Your task to perform on an android device: Search for duracell triple a on bestbuy.com, select the first entry, add it to the cart, then select checkout. Image 0: 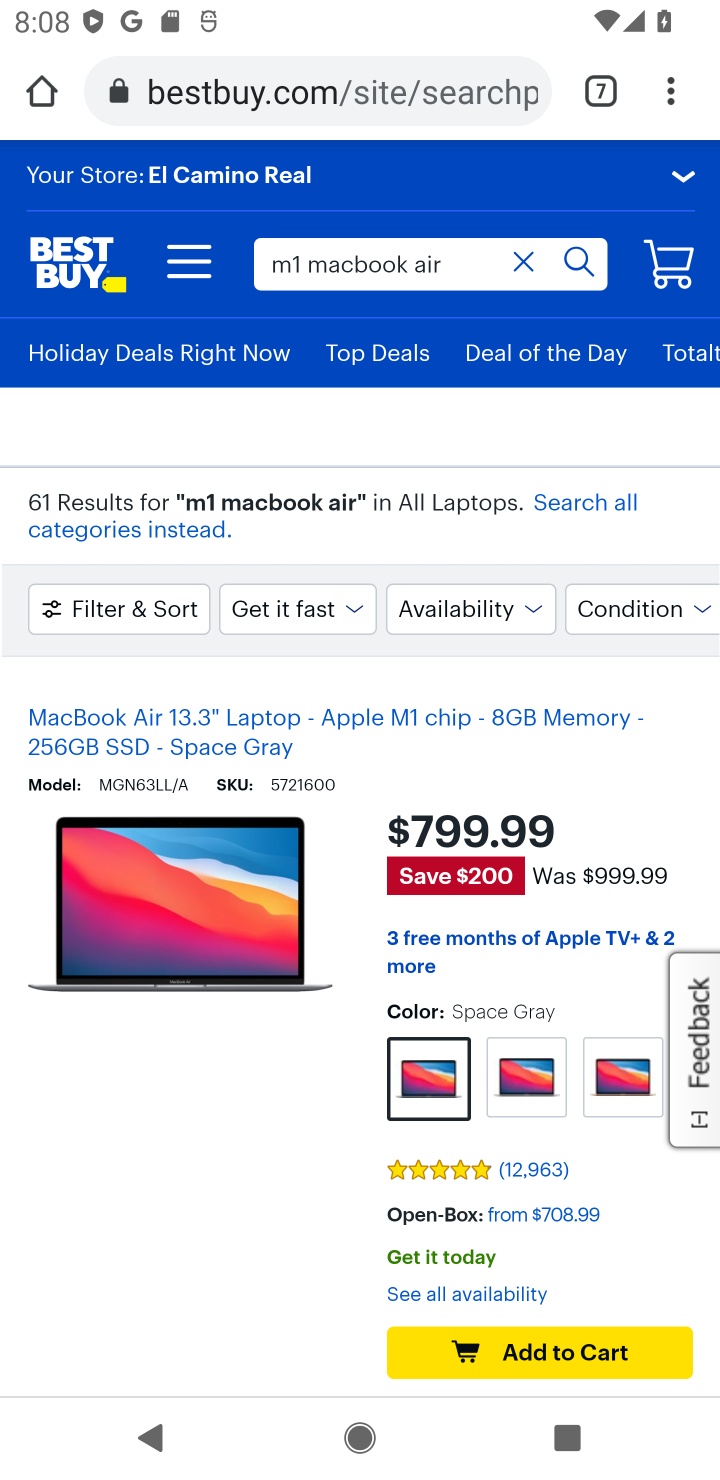
Step 0: press home button
Your task to perform on an android device: Search for duracell triple a on bestbuy.com, select the first entry, add it to the cart, then select checkout. Image 1: 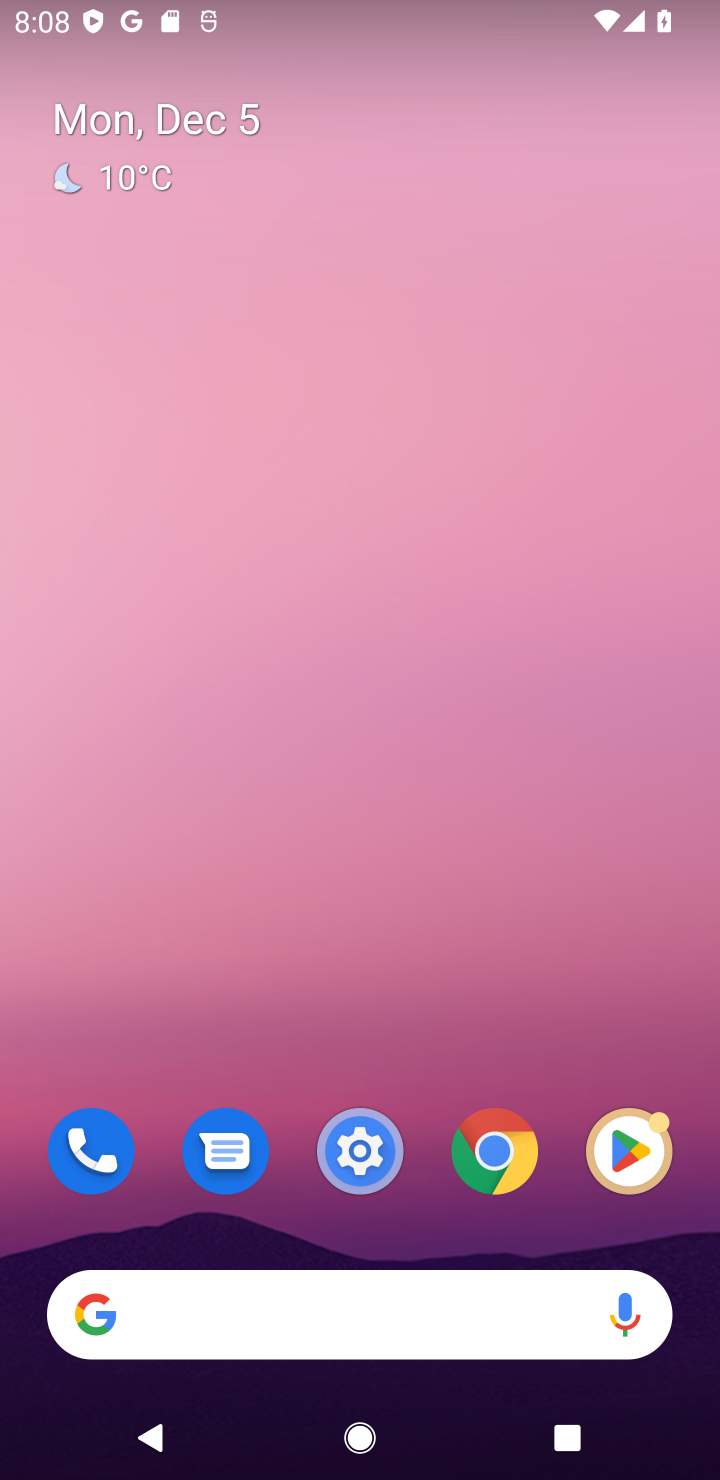
Step 1: click (516, 1289)
Your task to perform on an android device: Search for duracell triple a on bestbuy.com, select the first entry, add it to the cart, then select checkout. Image 2: 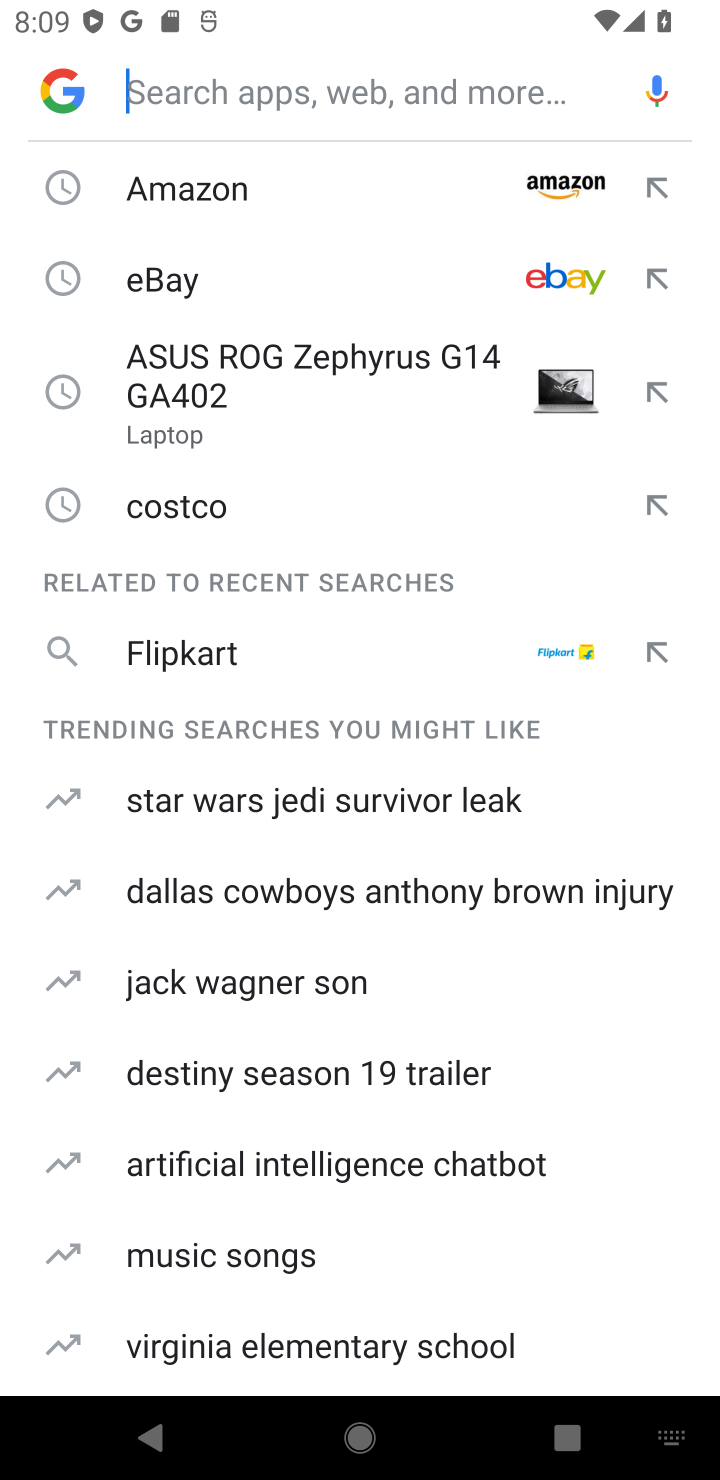
Step 2: type "bestbuy"
Your task to perform on an android device: Search for duracell triple a on bestbuy.com, select the first entry, add it to the cart, then select checkout. Image 3: 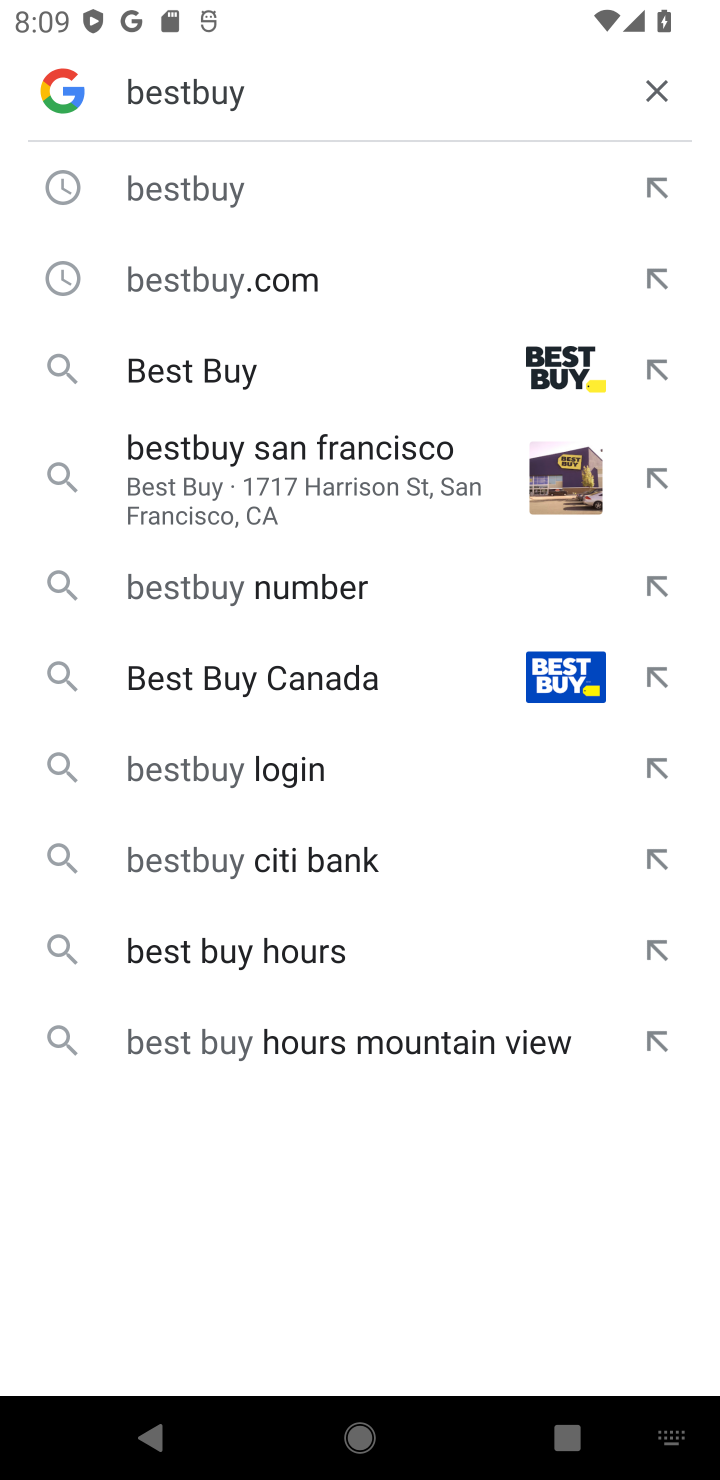
Step 3: click (173, 366)
Your task to perform on an android device: Search for duracell triple a on bestbuy.com, select the first entry, add it to the cart, then select checkout. Image 4: 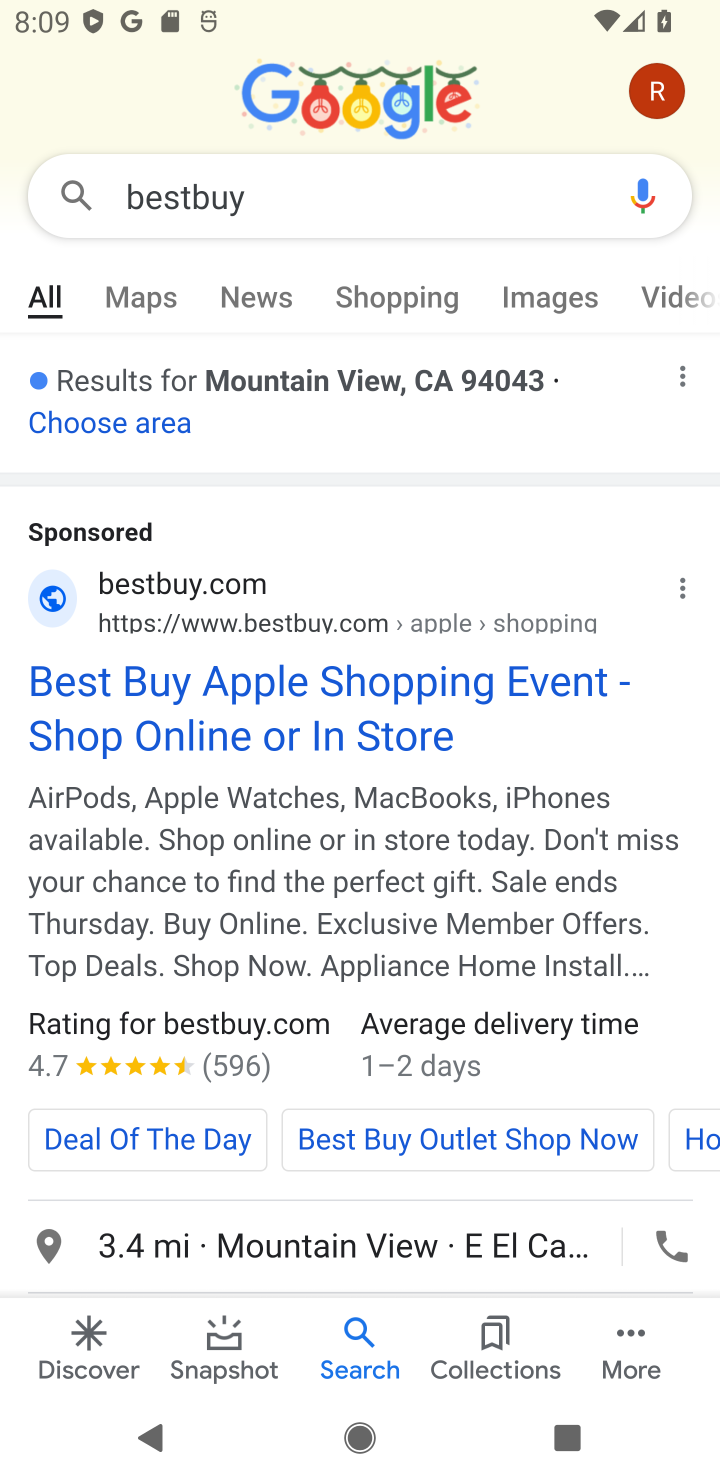
Step 4: click (153, 691)
Your task to perform on an android device: Search for duracell triple a on bestbuy.com, select the first entry, add it to the cart, then select checkout. Image 5: 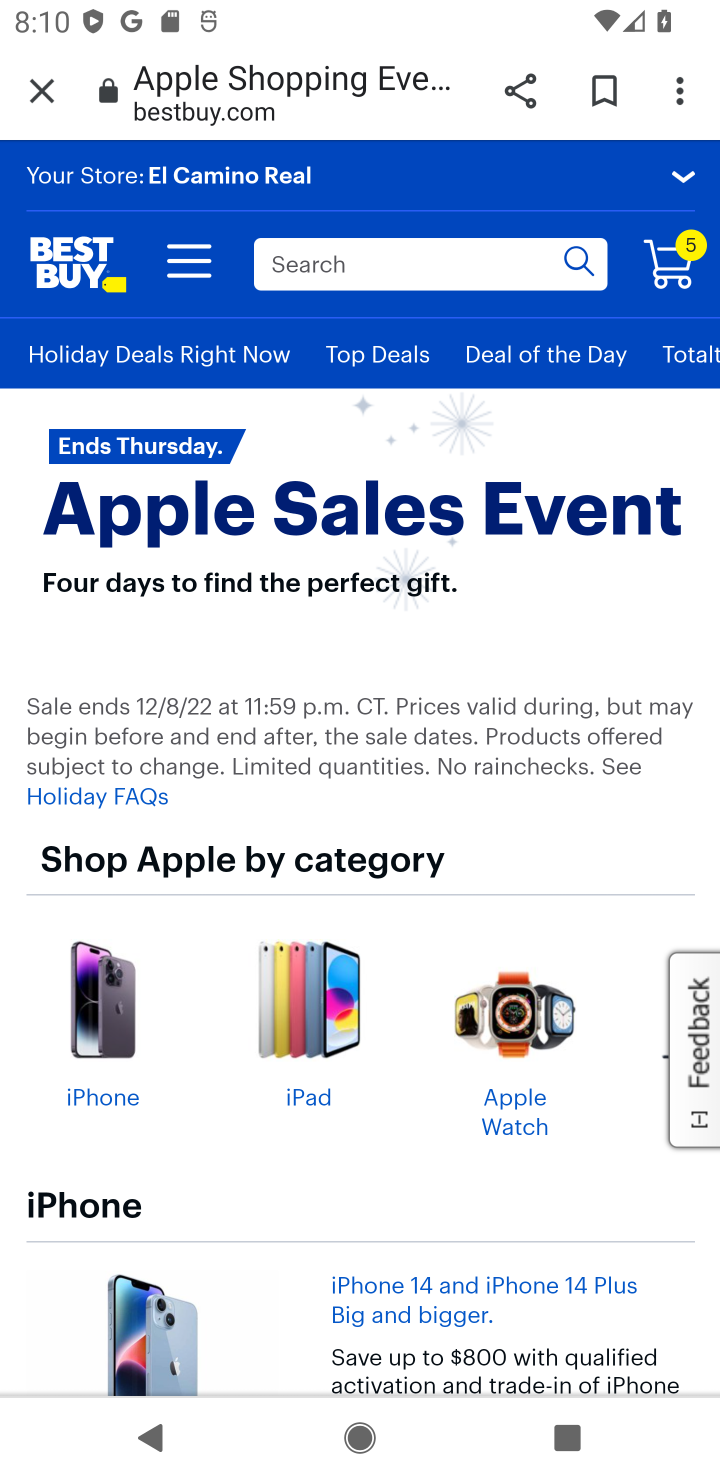
Step 5: click (354, 266)
Your task to perform on an android device: Search for duracell triple a on bestbuy.com, select the first entry, add it to the cart, then select checkout. Image 6: 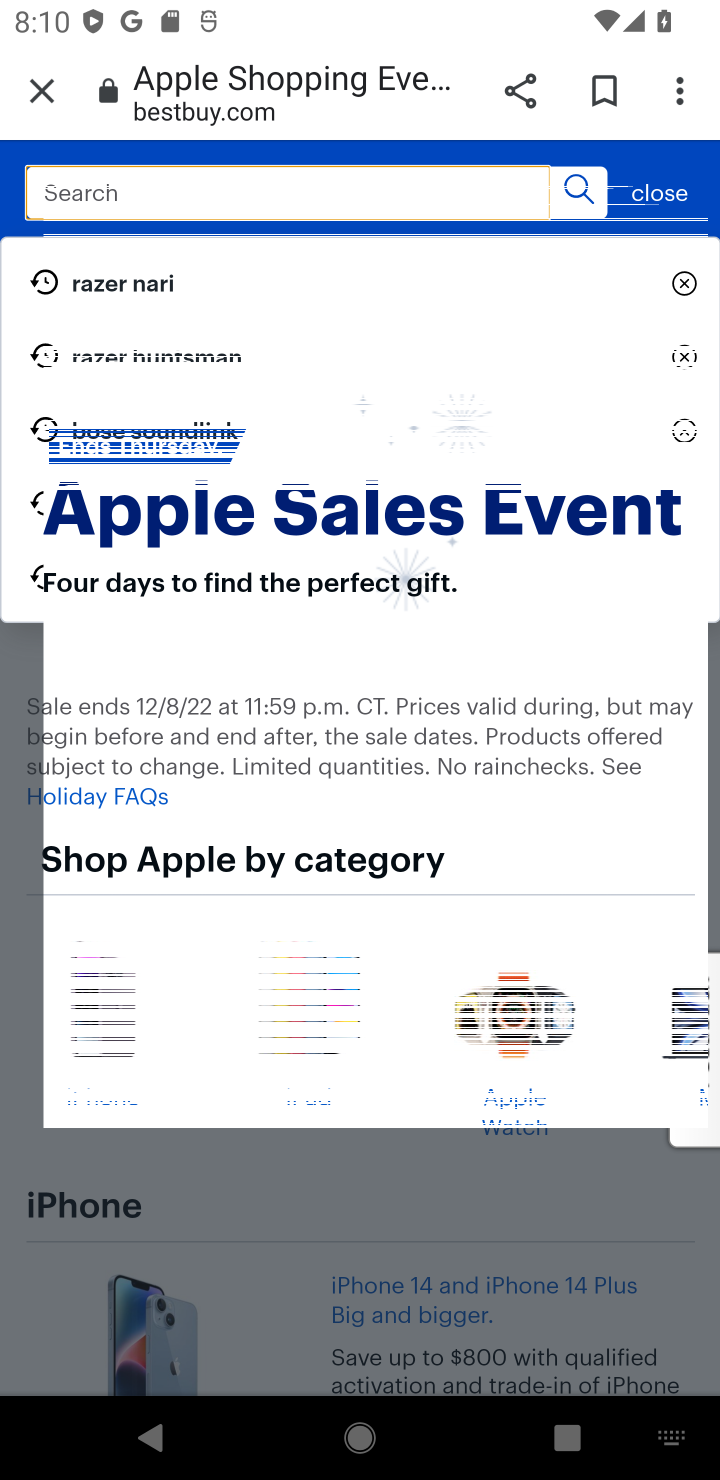
Step 6: type "duracell triple "
Your task to perform on an android device: Search for duracell triple a on bestbuy.com, select the first entry, add it to the cart, then select checkout. Image 7: 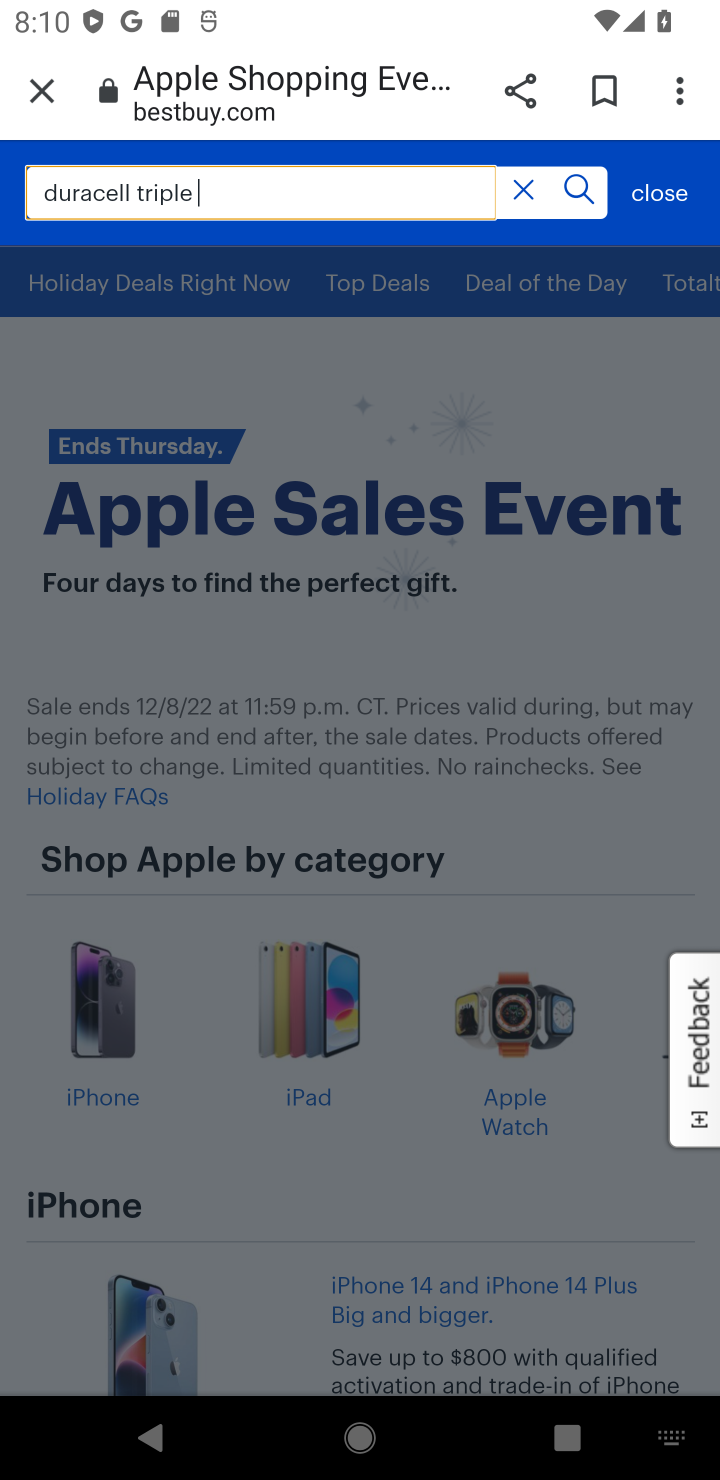
Step 7: click (575, 191)
Your task to perform on an android device: Search for duracell triple a on bestbuy.com, select the first entry, add it to the cart, then select checkout. Image 8: 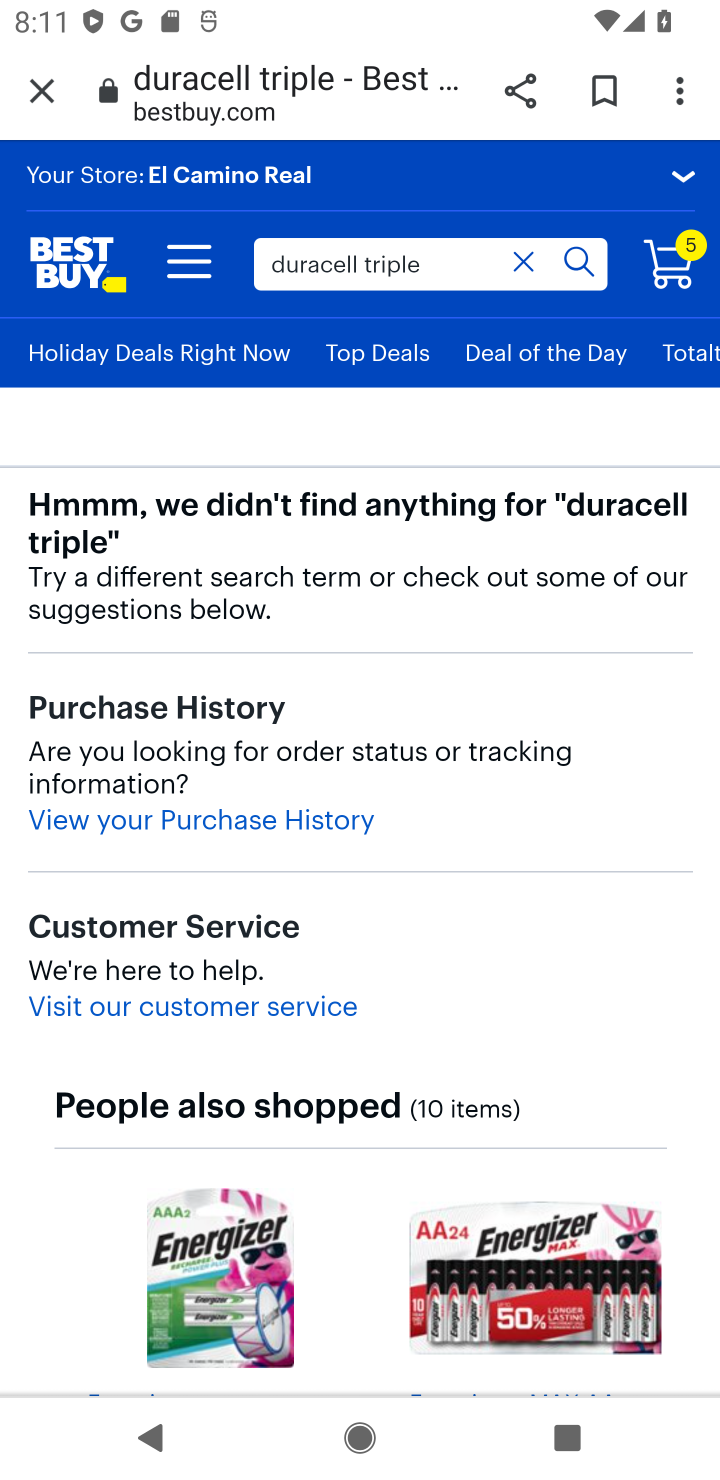
Step 8: drag from (561, 946) to (485, 521)
Your task to perform on an android device: Search for duracell triple a on bestbuy.com, select the first entry, add it to the cart, then select checkout. Image 9: 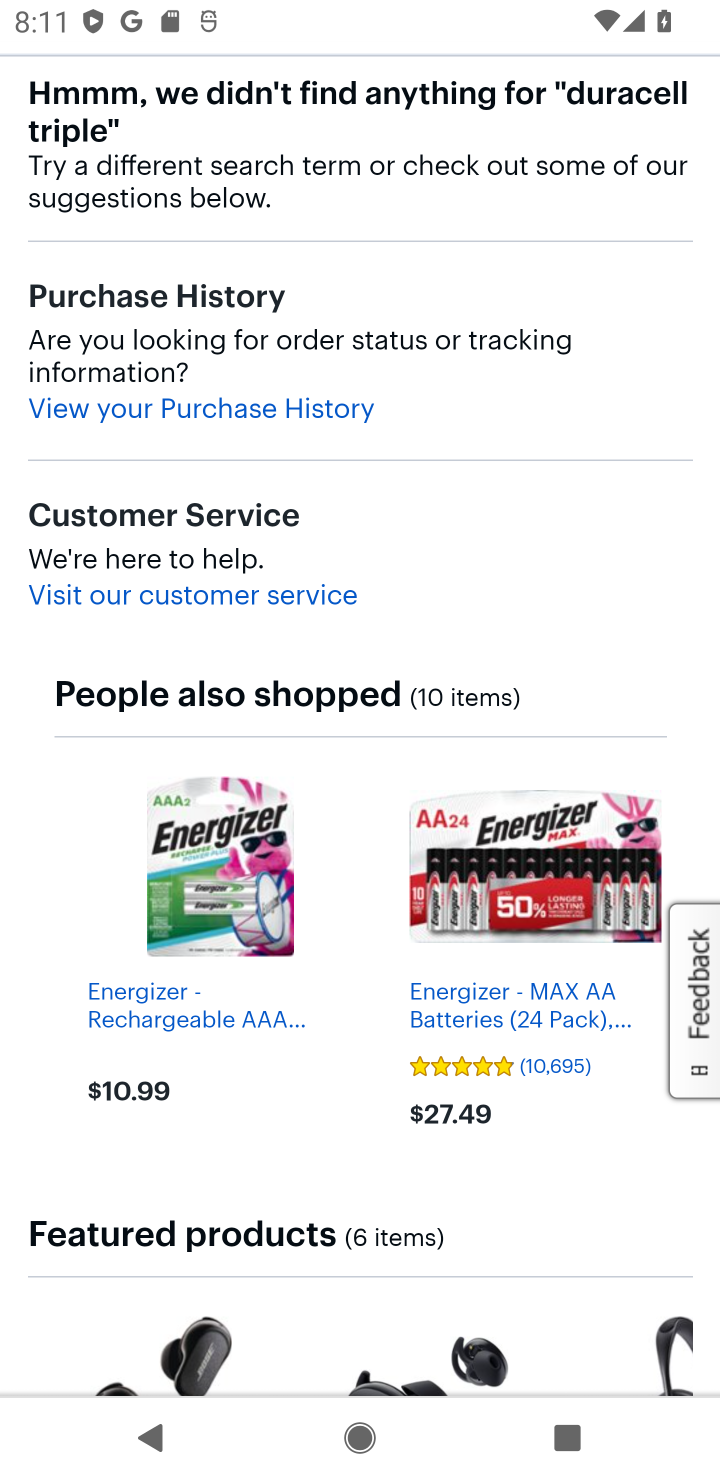
Step 9: click (269, 1017)
Your task to perform on an android device: Search for duracell triple a on bestbuy.com, select the first entry, add it to the cart, then select checkout. Image 10: 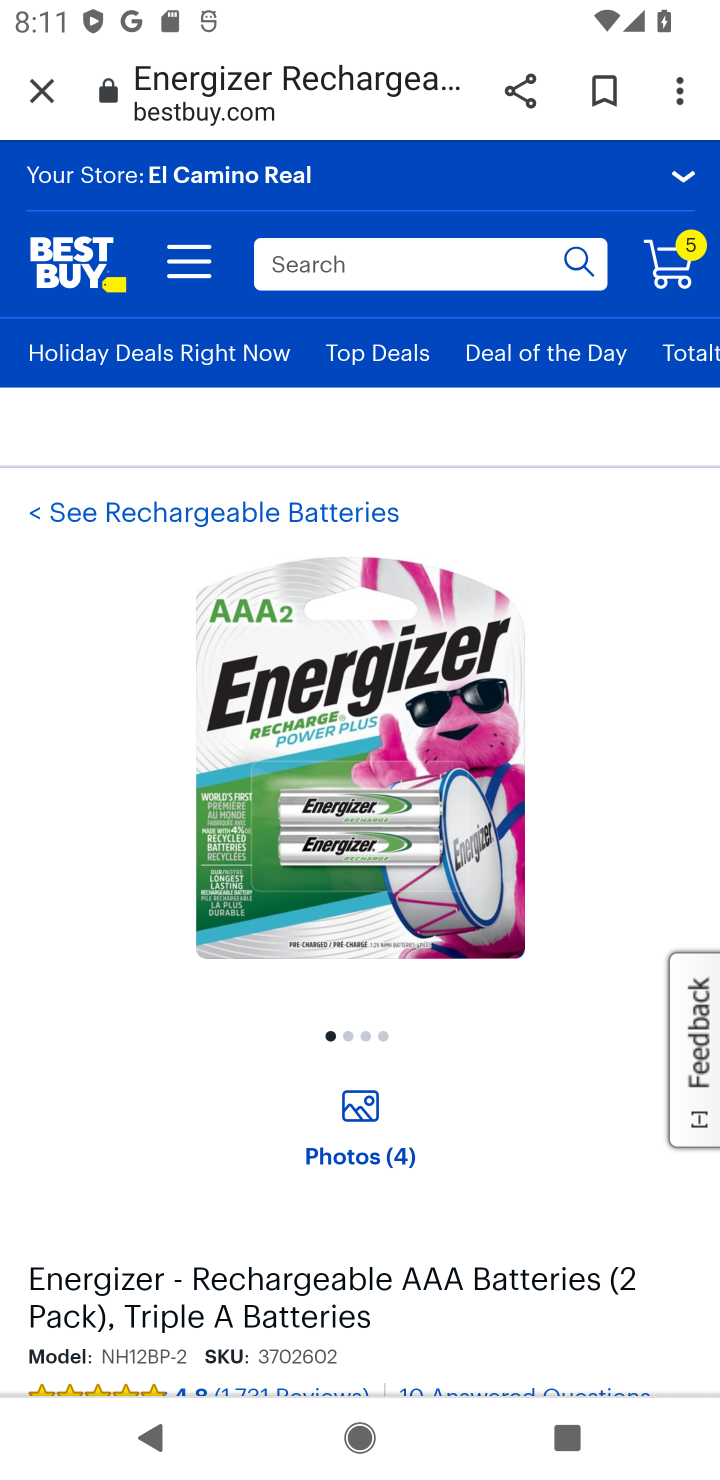
Step 10: drag from (292, 1139) to (285, 751)
Your task to perform on an android device: Search for duracell triple a on bestbuy.com, select the first entry, add it to the cart, then select checkout. Image 11: 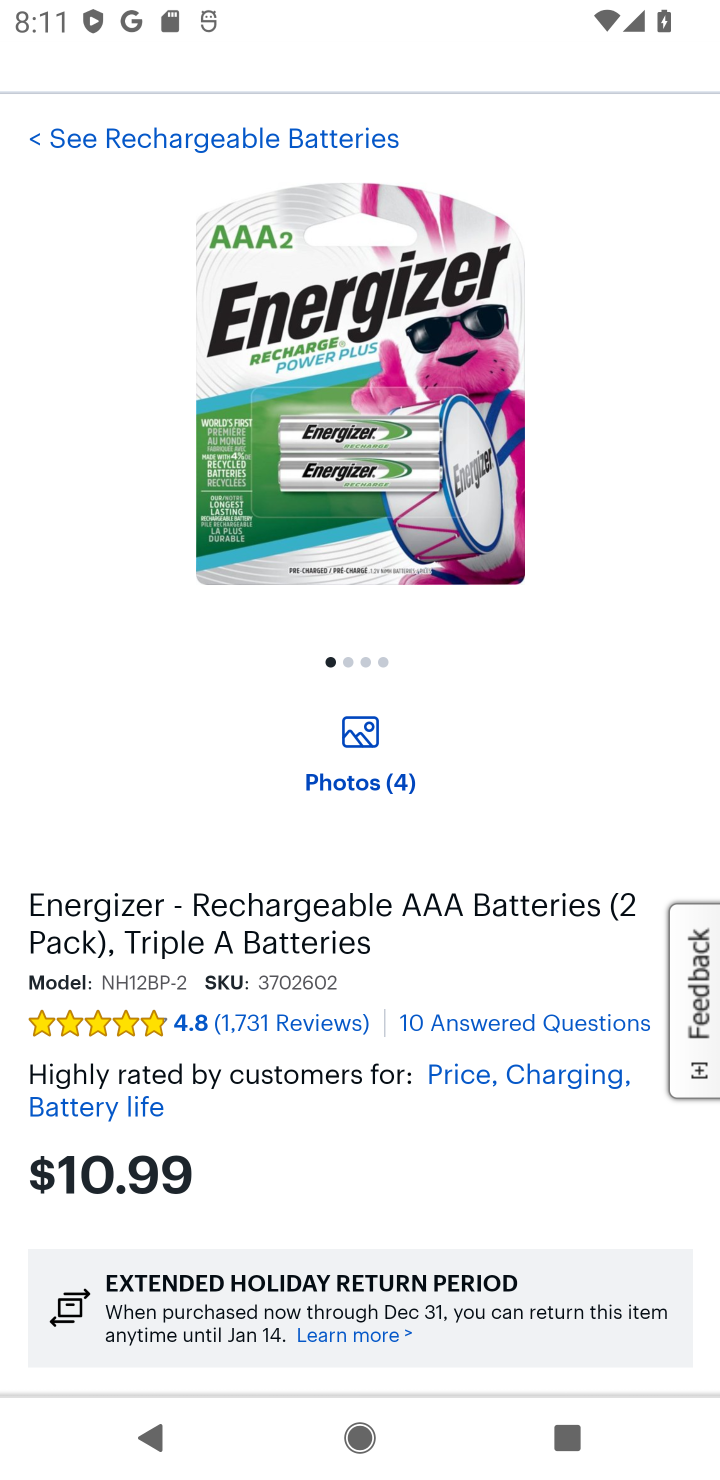
Step 11: drag from (362, 1290) to (361, 992)
Your task to perform on an android device: Search for duracell triple a on bestbuy.com, select the first entry, add it to the cart, then select checkout. Image 12: 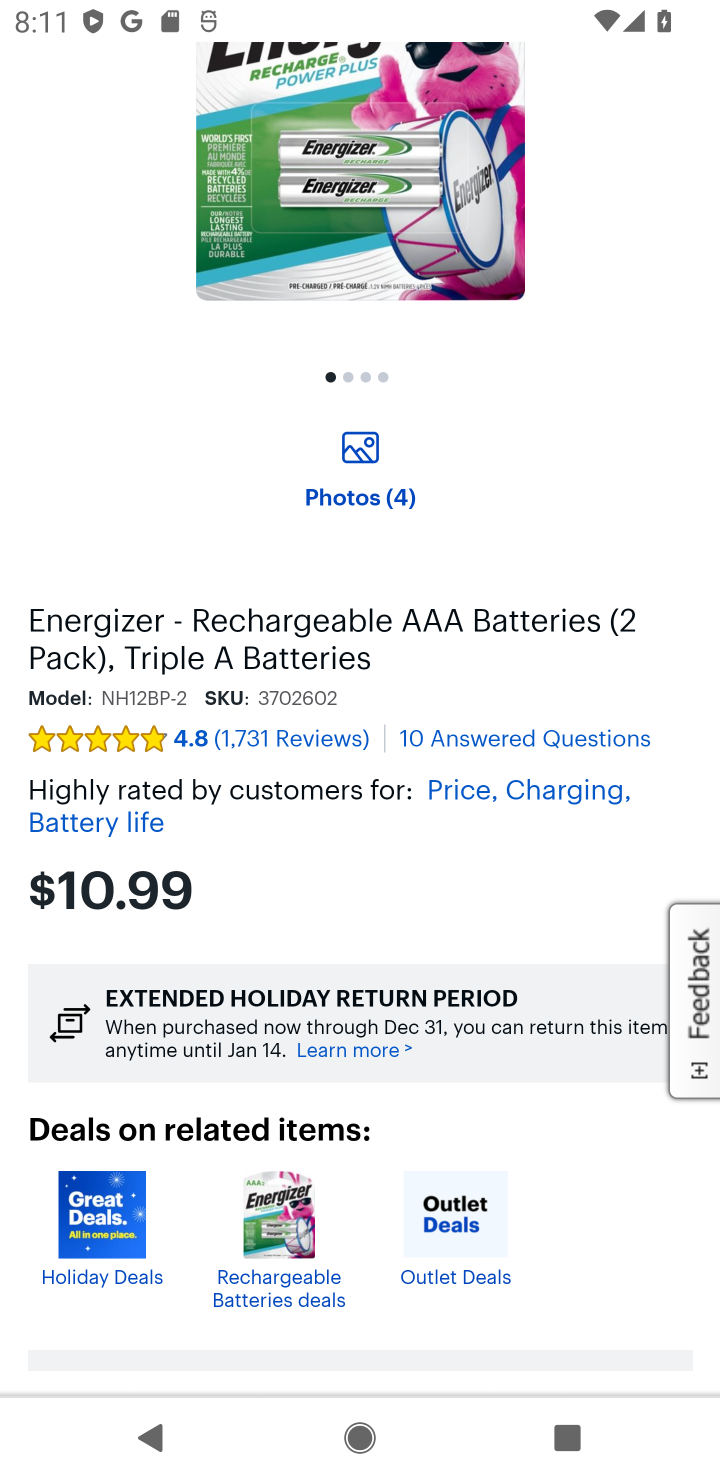
Step 12: drag from (443, 1198) to (448, 919)
Your task to perform on an android device: Search for duracell triple a on bestbuy.com, select the first entry, add it to the cart, then select checkout. Image 13: 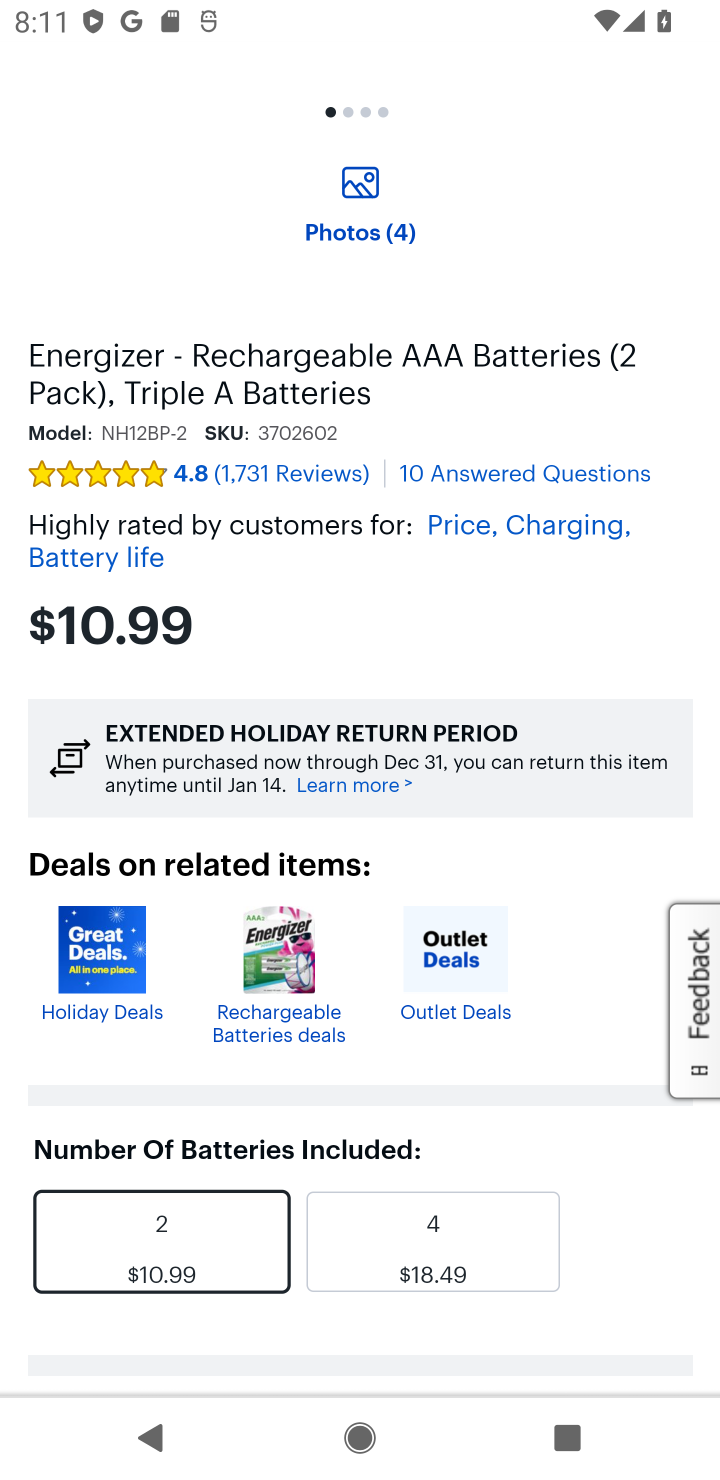
Step 13: drag from (608, 1278) to (536, 840)
Your task to perform on an android device: Search for duracell triple a on bestbuy.com, select the first entry, add it to the cart, then select checkout. Image 14: 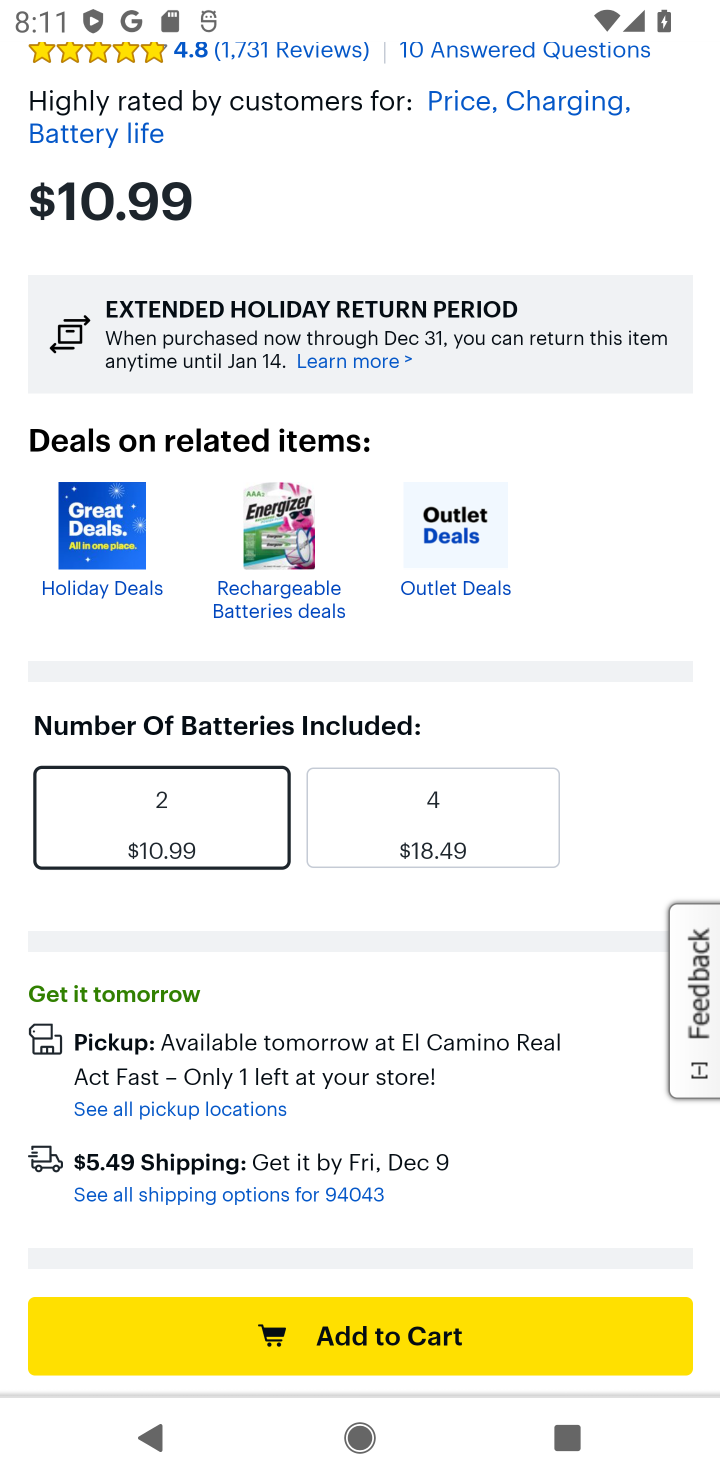
Step 14: drag from (571, 1232) to (549, 740)
Your task to perform on an android device: Search for duracell triple a on bestbuy.com, select the first entry, add it to the cart, then select checkout. Image 15: 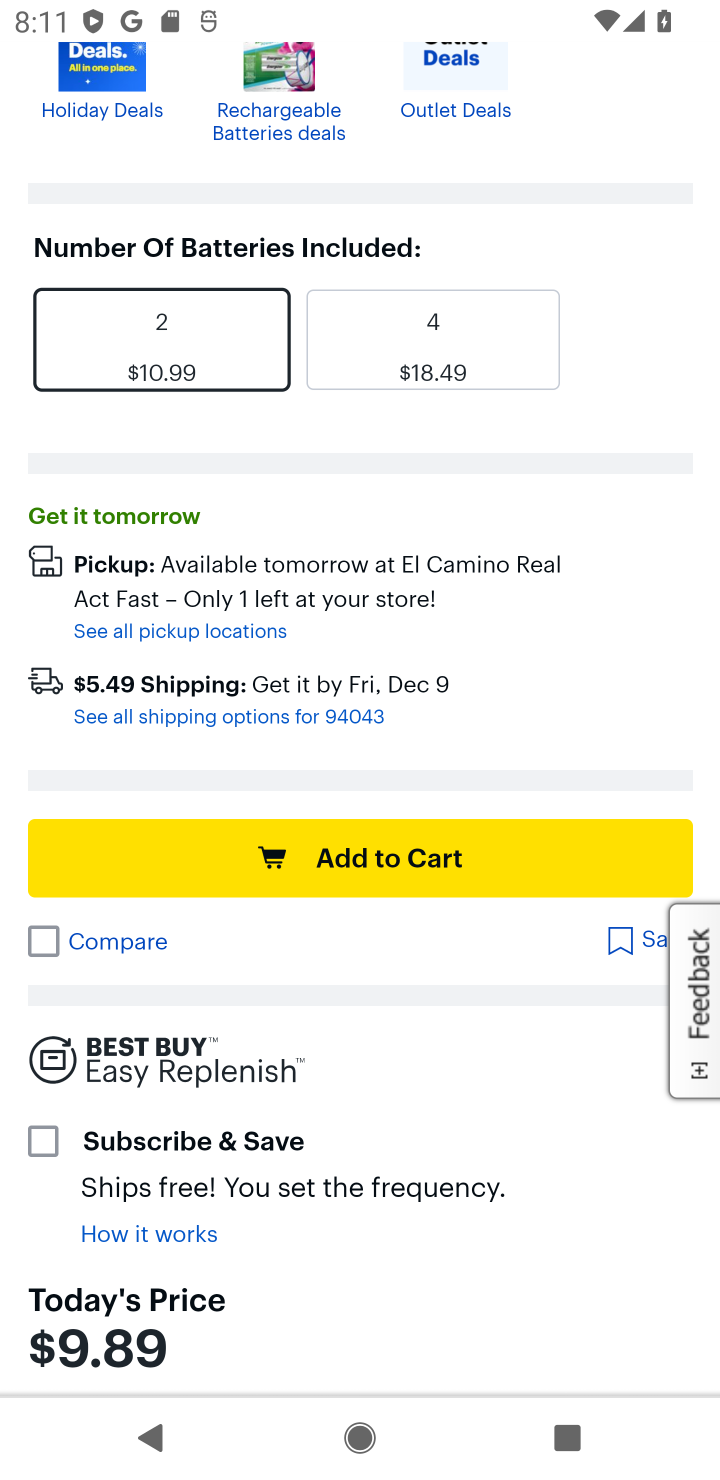
Step 15: click (508, 1118)
Your task to perform on an android device: Search for duracell triple a on bestbuy.com, select the first entry, add it to the cart, then select checkout. Image 16: 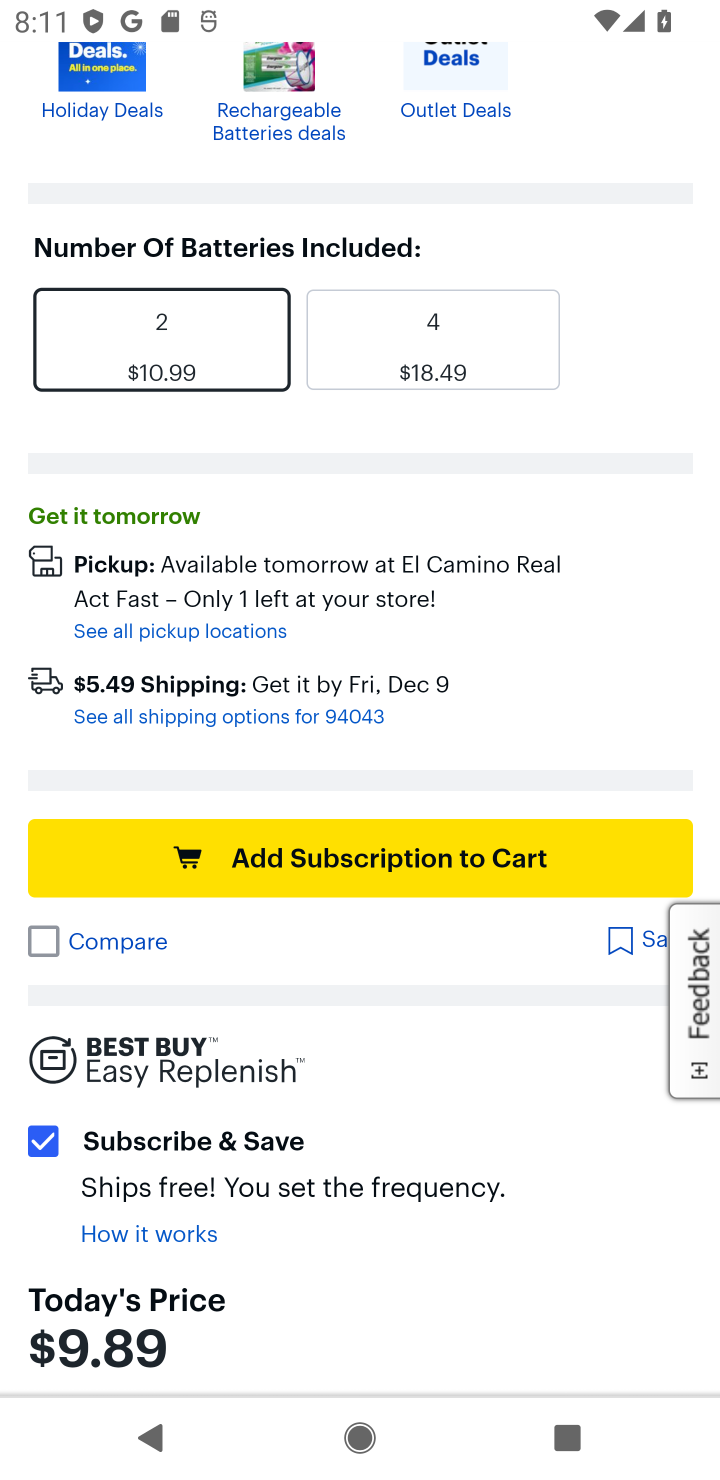
Step 16: task complete